Your task to perform on an android device: Go to notification settings Image 0: 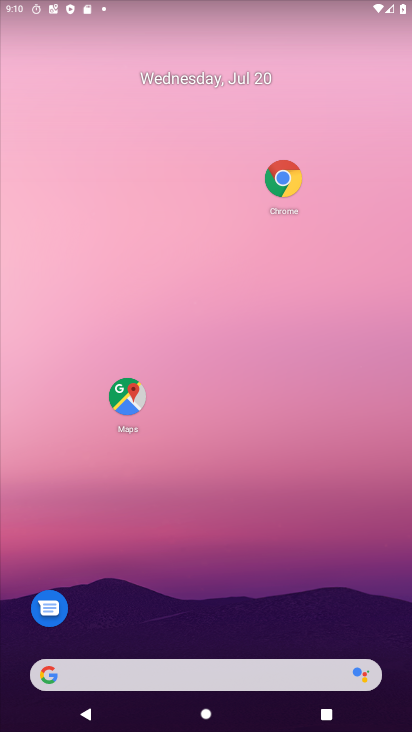
Step 0: drag from (207, 596) to (197, 77)
Your task to perform on an android device: Go to notification settings Image 1: 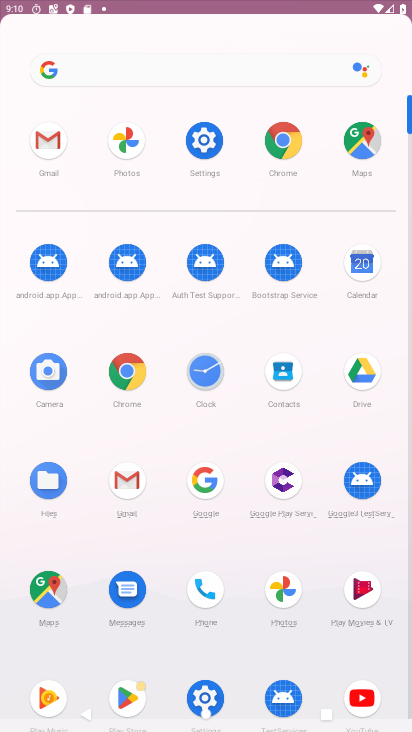
Step 1: drag from (252, 601) to (175, 19)
Your task to perform on an android device: Go to notification settings Image 2: 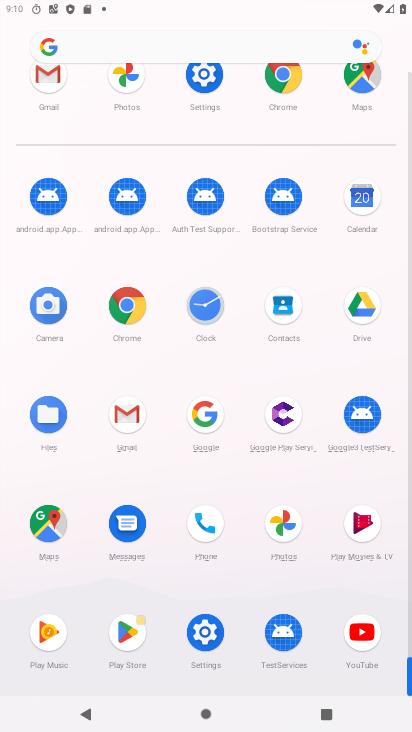
Step 2: click (169, 0)
Your task to perform on an android device: Go to notification settings Image 3: 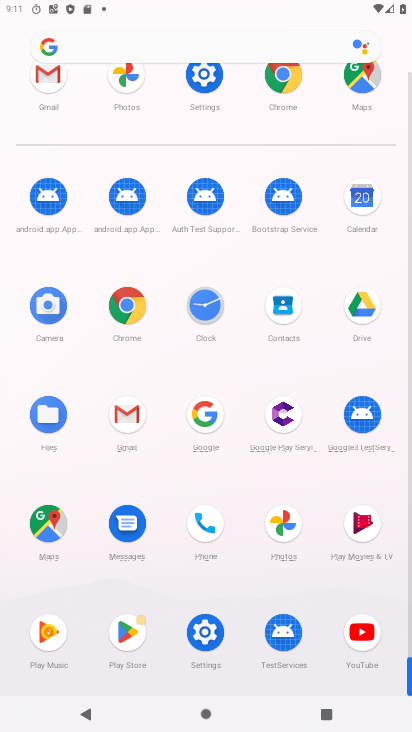
Step 3: click (213, 630)
Your task to perform on an android device: Go to notification settings Image 4: 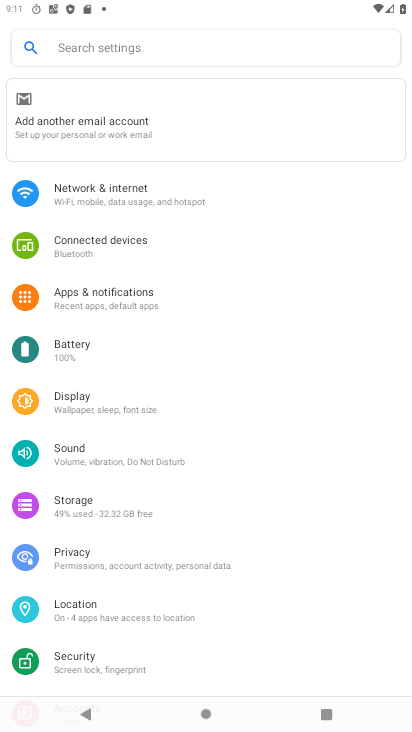
Step 4: click (121, 305)
Your task to perform on an android device: Go to notification settings Image 5: 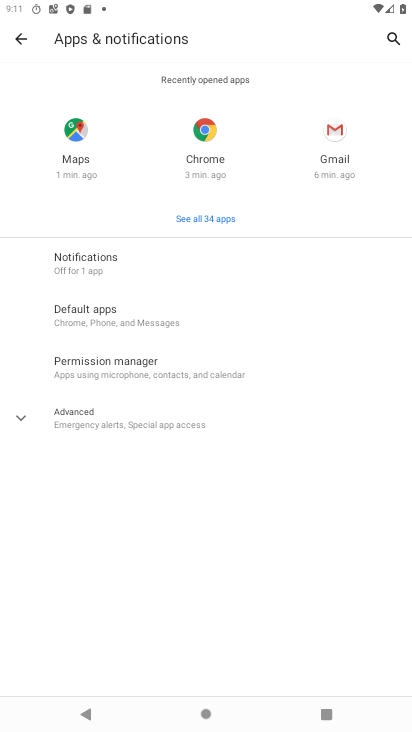
Step 5: click (136, 277)
Your task to perform on an android device: Go to notification settings Image 6: 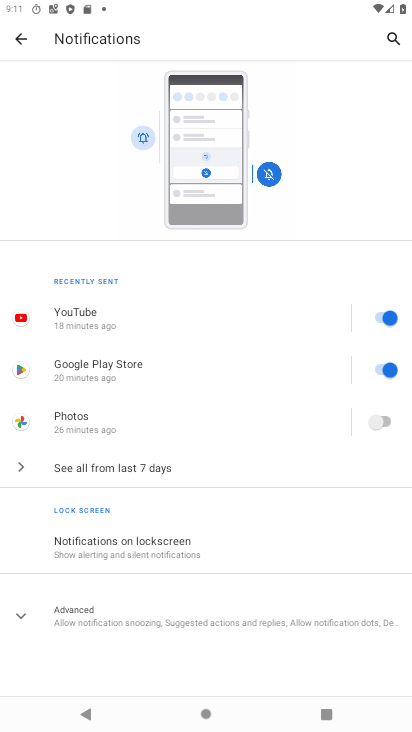
Step 6: task complete